Your task to perform on an android device: turn off airplane mode Image 0: 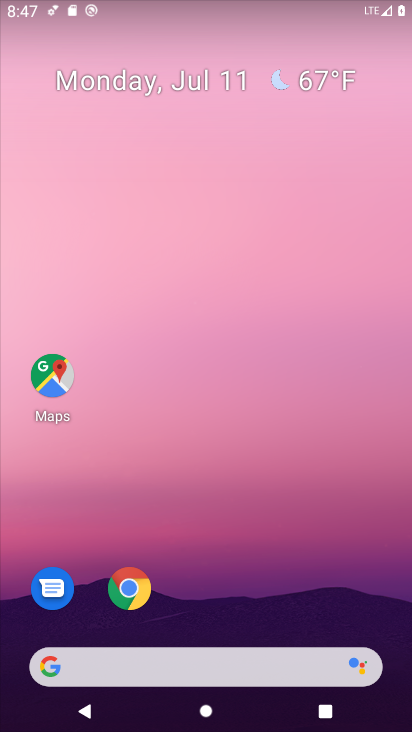
Step 0: drag from (277, 551) to (287, 163)
Your task to perform on an android device: turn off airplane mode Image 1: 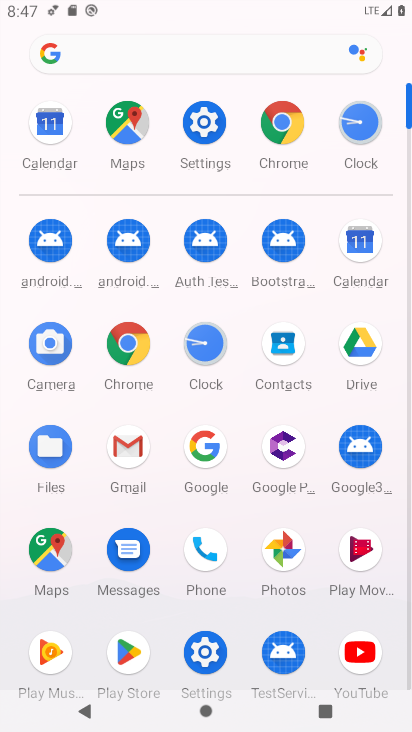
Step 1: click (208, 117)
Your task to perform on an android device: turn off airplane mode Image 2: 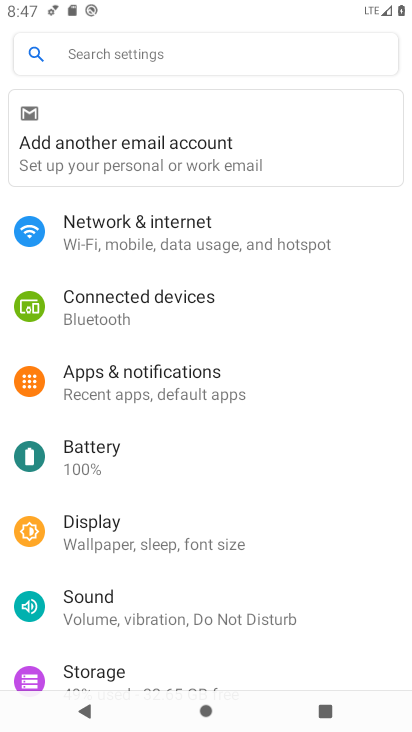
Step 2: click (290, 252)
Your task to perform on an android device: turn off airplane mode Image 3: 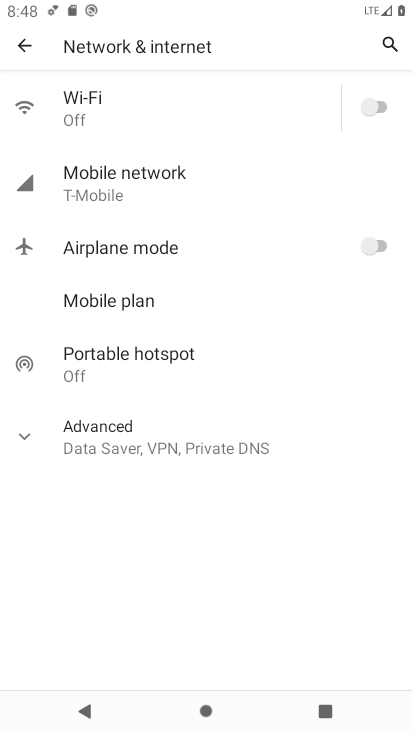
Step 3: task complete